Your task to perform on an android device: Open Chrome and go to settings Image 0: 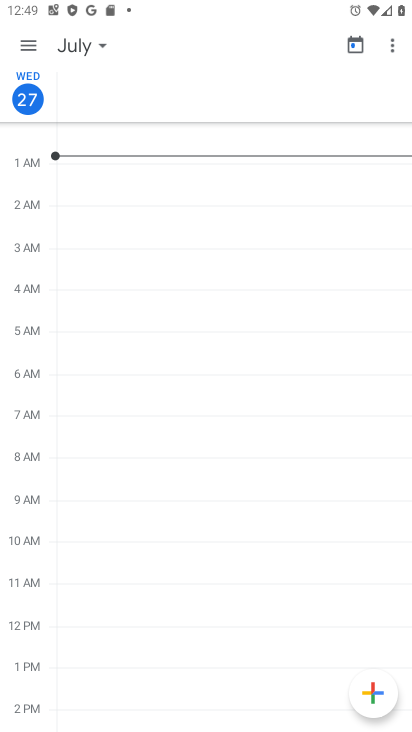
Step 0: press home button
Your task to perform on an android device: Open Chrome and go to settings Image 1: 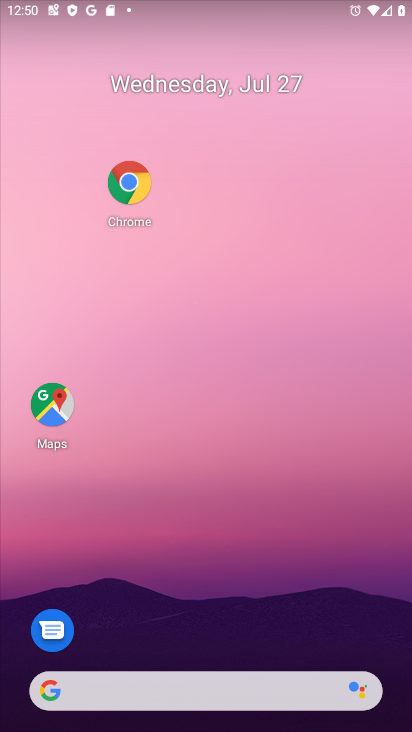
Step 1: click (144, 194)
Your task to perform on an android device: Open Chrome and go to settings Image 2: 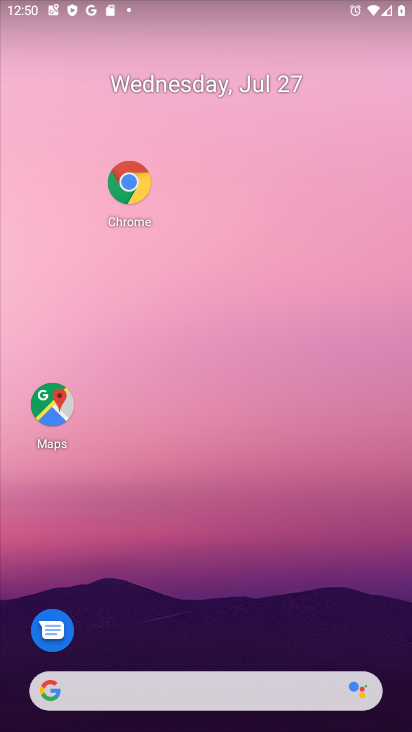
Step 2: click (144, 194)
Your task to perform on an android device: Open Chrome and go to settings Image 3: 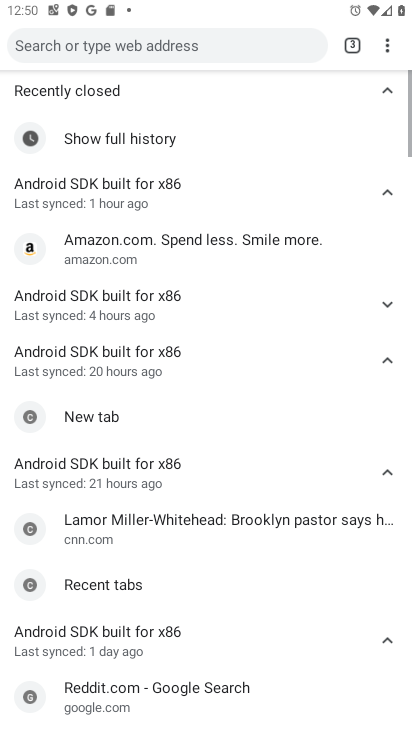
Step 3: click (383, 49)
Your task to perform on an android device: Open Chrome and go to settings Image 4: 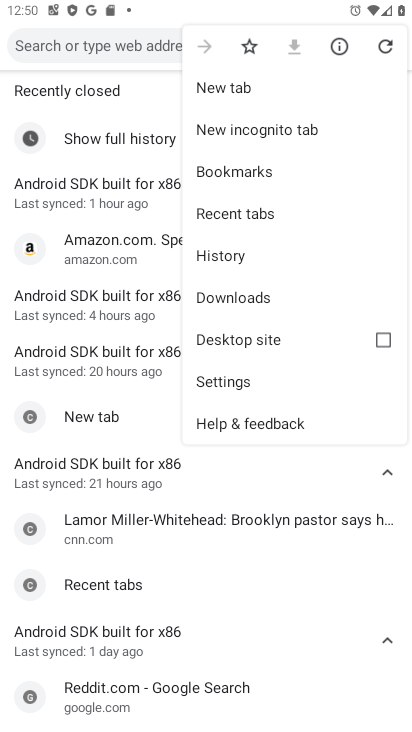
Step 4: click (239, 383)
Your task to perform on an android device: Open Chrome and go to settings Image 5: 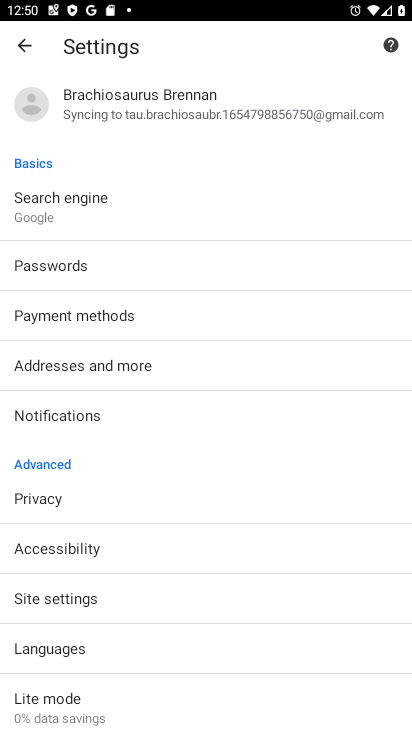
Step 5: task complete